Your task to perform on an android device: open chrome privacy settings Image 0: 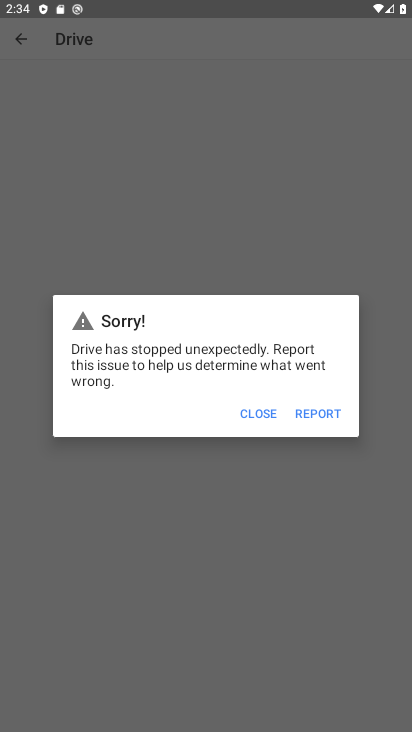
Step 0: press home button
Your task to perform on an android device: open chrome privacy settings Image 1: 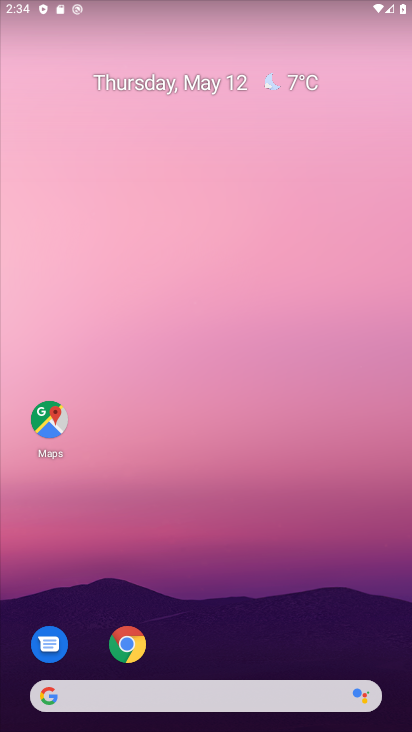
Step 1: click (138, 652)
Your task to perform on an android device: open chrome privacy settings Image 2: 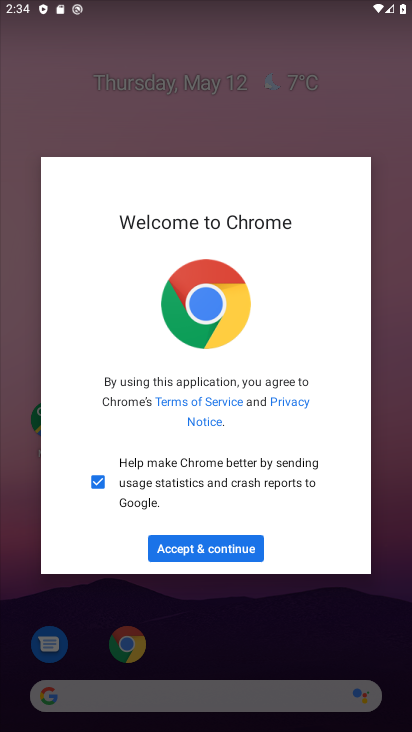
Step 2: click (241, 541)
Your task to perform on an android device: open chrome privacy settings Image 3: 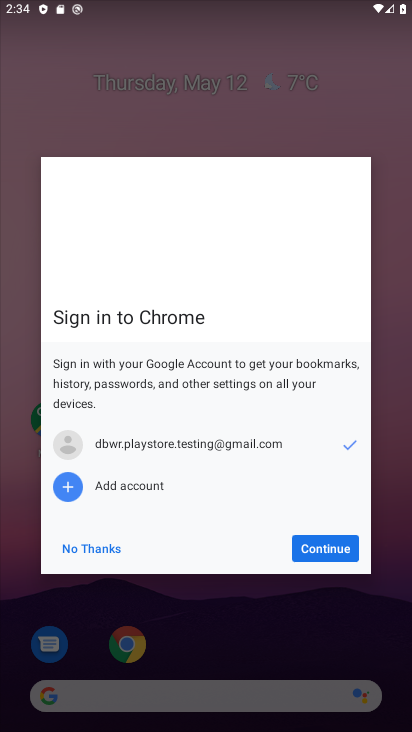
Step 3: click (305, 546)
Your task to perform on an android device: open chrome privacy settings Image 4: 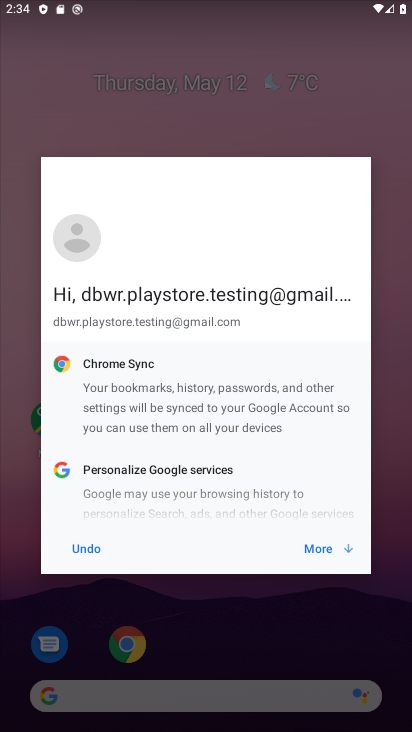
Step 4: click (305, 546)
Your task to perform on an android device: open chrome privacy settings Image 5: 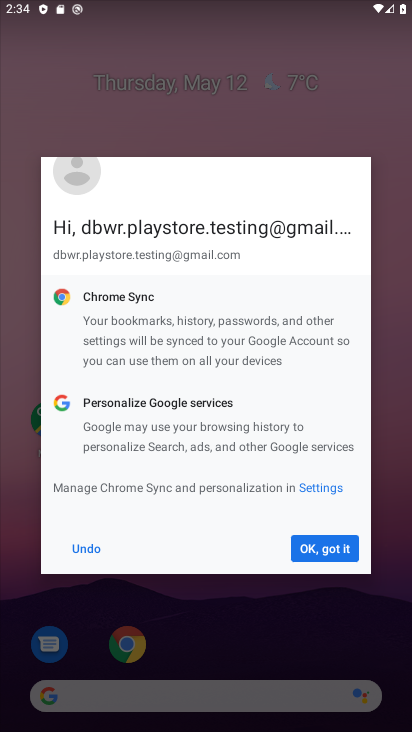
Step 5: click (310, 551)
Your task to perform on an android device: open chrome privacy settings Image 6: 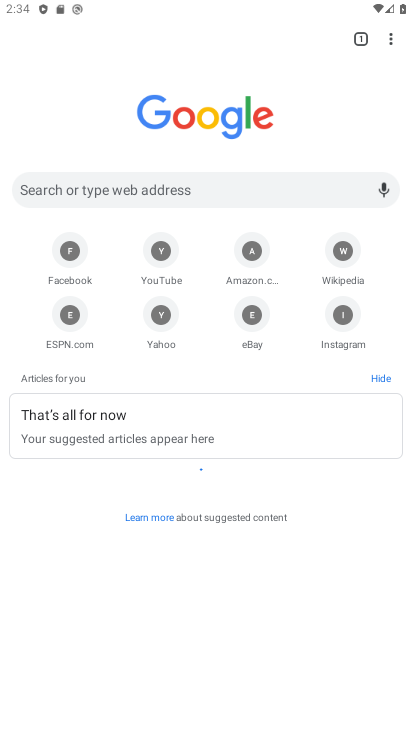
Step 6: drag from (398, 45) to (300, 335)
Your task to perform on an android device: open chrome privacy settings Image 7: 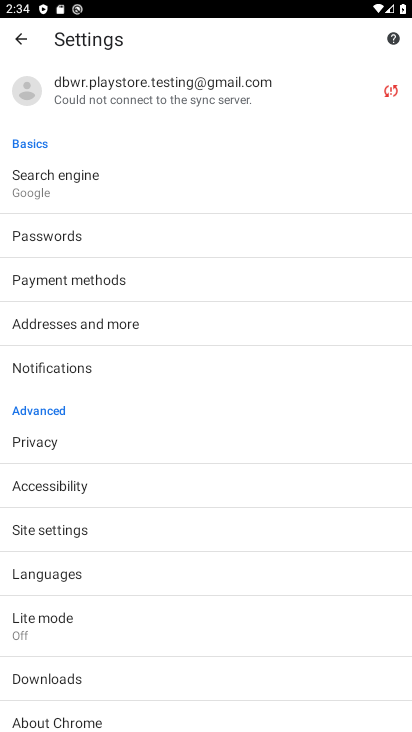
Step 7: click (112, 455)
Your task to perform on an android device: open chrome privacy settings Image 8: 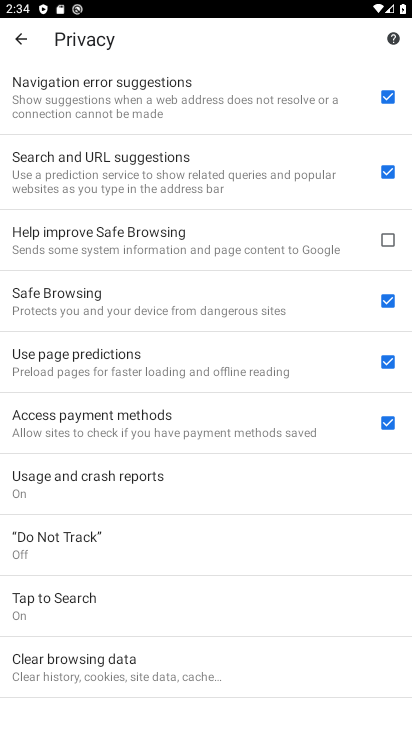
Step 8: task complete